Your task to perform on an android device: toggle wifi Image 0: 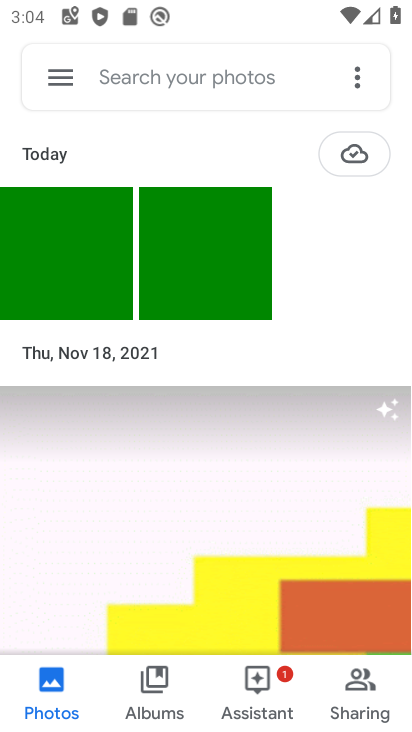
Step 0: press home button
Your task to perform on an android device: toggle wifi Image 1: 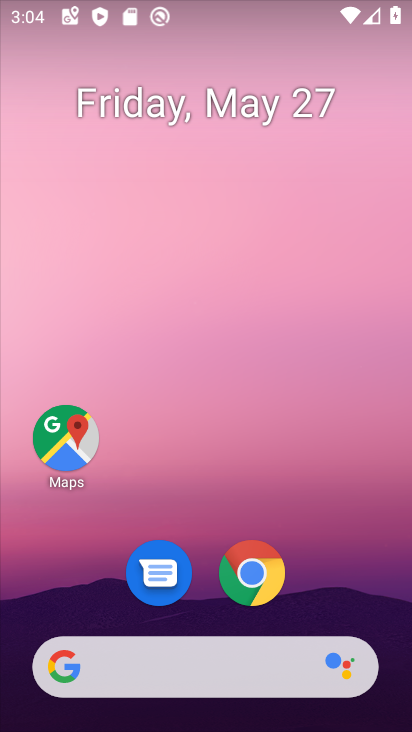
Step 1: drag from (258, 485) to (213, 8)
Your task to perform on an android device: toggle wifi Image 2: 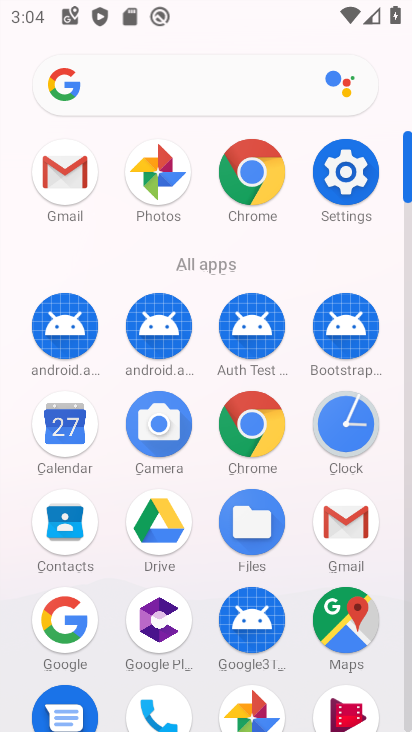
Step 2: click (330, 162)
Your task to perform on an android device: toggle wifi Image 3: 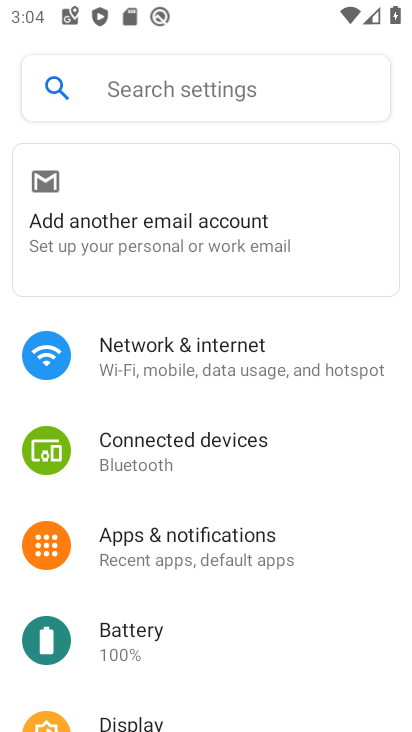
Step 3: click (253, 354)
Your task to perform on an android device: toggle wifi Image 4: 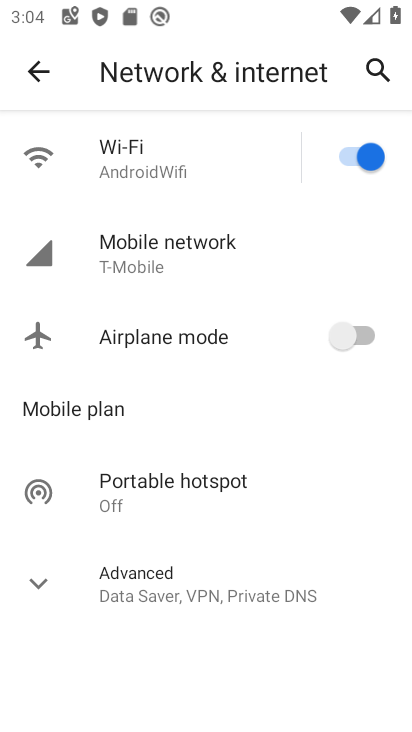
Step 4: click (351, 151)
Your task to perform on an android device: toggle wifi Image 5: 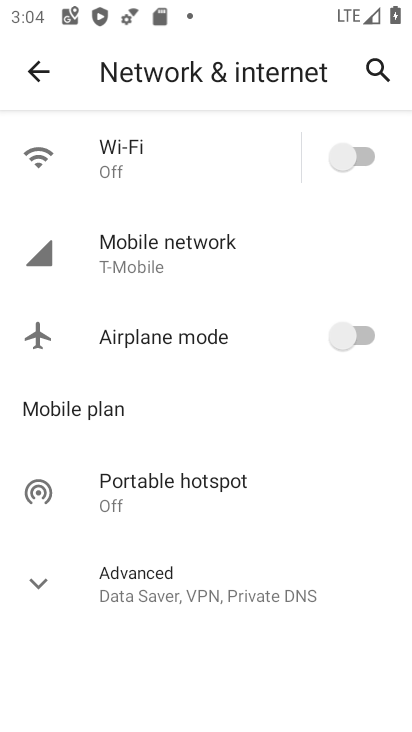
Step 5: task complete